Your task to perform on an android device: What's the weather going to be tomorrow? Image 0: 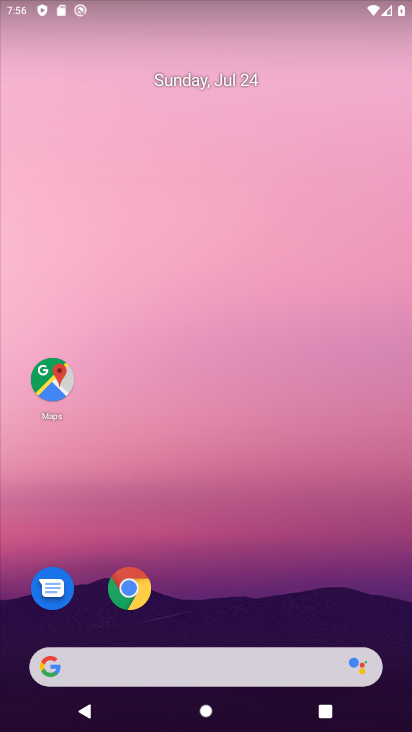
Step 0: click (275, 665)
Your task to perform on an android device: What's the weather going to be tomorrow? Image 1: 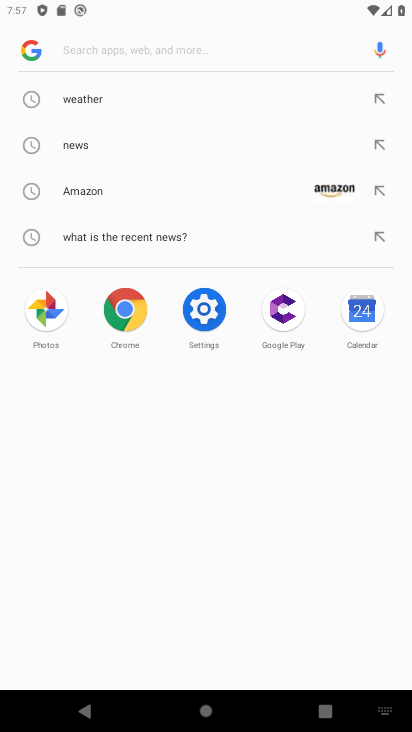
Step 1: type "what's the weather going to  be tomorrow?"
Your task to perform on an android device: What's the weather going to be tomorrow? Image 2: 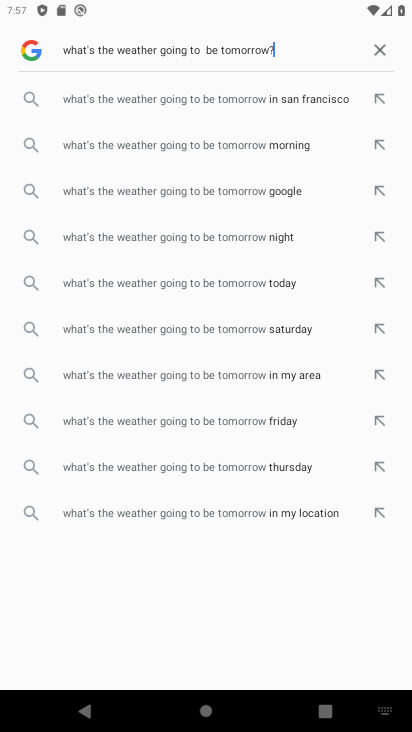
Step 2: click (248, 193)
Your task to perform on an android device: What's the weather going to be tomorrow? Image 3: 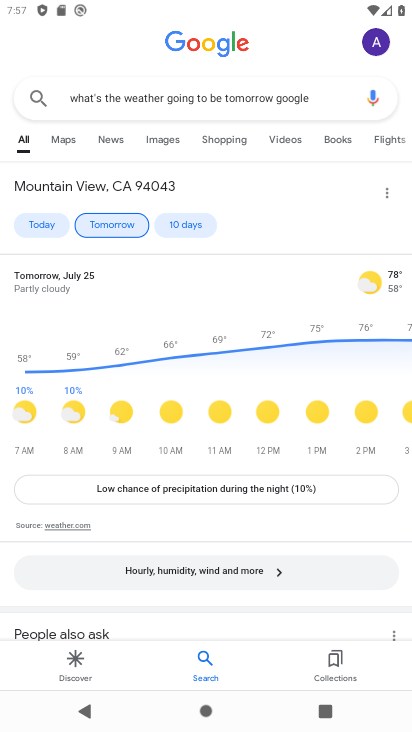
Step 3: task complete